Your task to perform on an android device: Go to CNN.com Image 0: 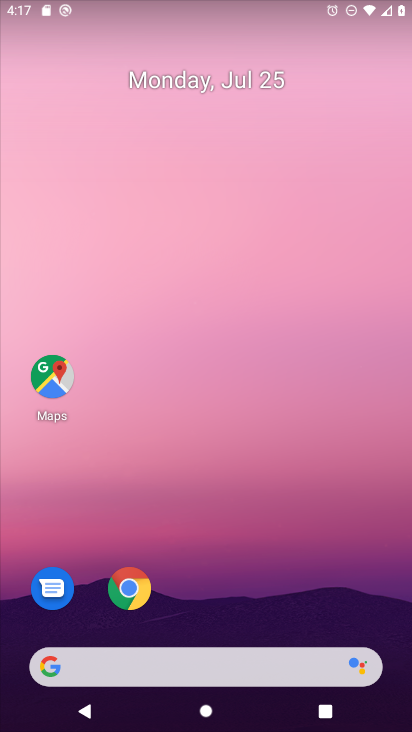
Step 0: click (131, 589)
Your task to perform on an android device: Go to CNN.com Image 1: 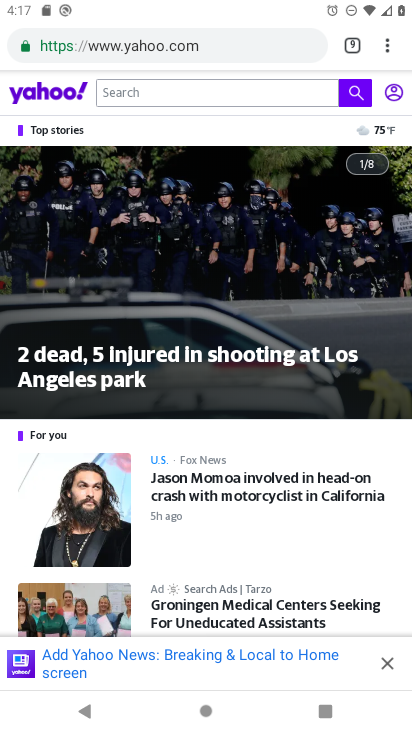
Step 1: click (385, 49)
Your task to perform on an android device: Go to CNN.com Image 2: 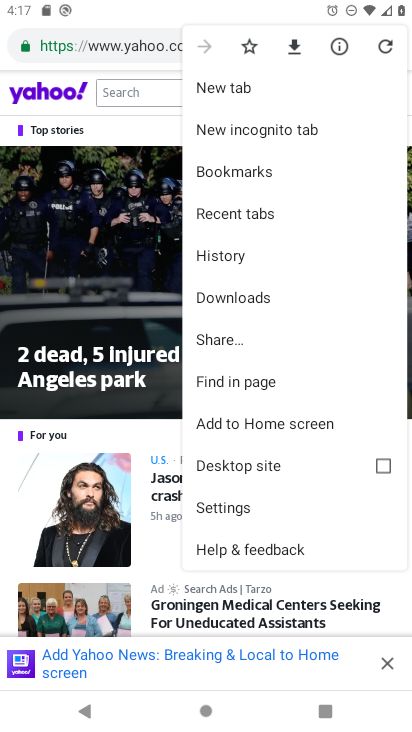
Step 2: click (229, 83)
Your task to perform on an android device: Go to CNN.com Image 3: 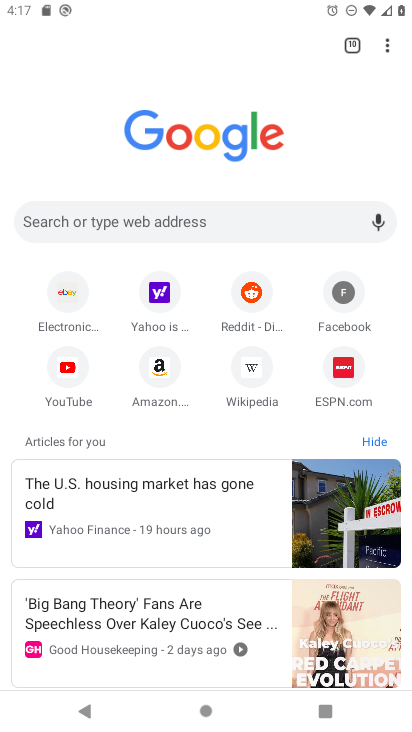
Step 3: click (245, 211)
Your task to perform on an android device: Go to CNN.com Image 4: 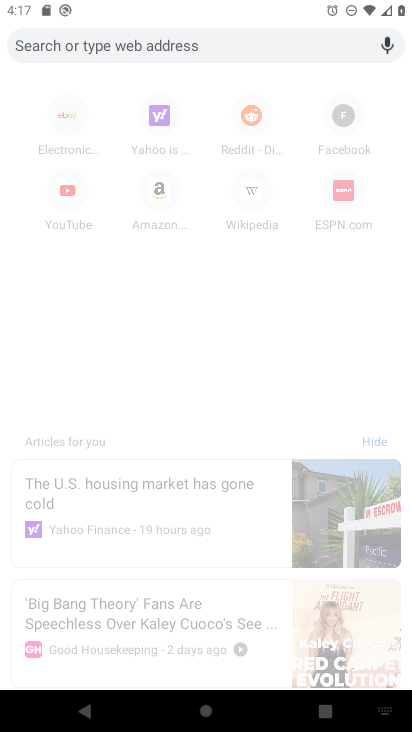
Step 4: type "CNN.com"
Your task to perform on an android device: Go to CNN.com Image 5: 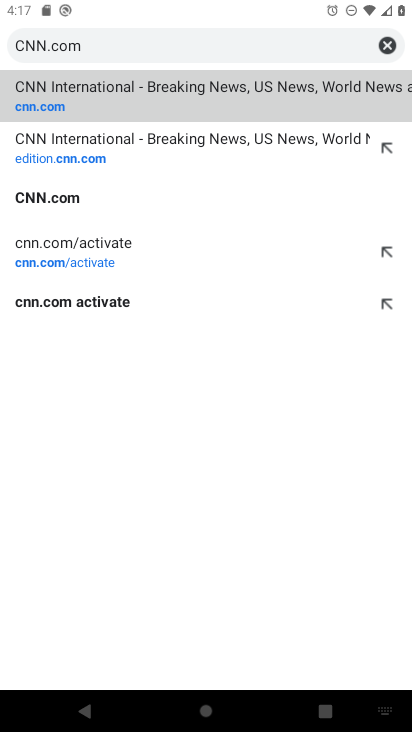
Step 5: click (62, 87)
Your task to perform on an android device: Go to CNN.com Image 6: 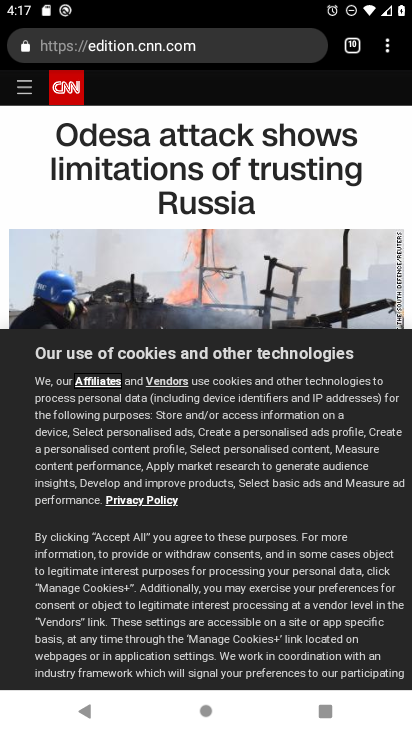
Step 6: task complete